Your task to perform on an android device: Clear all items from cart on newegg. Image 0: 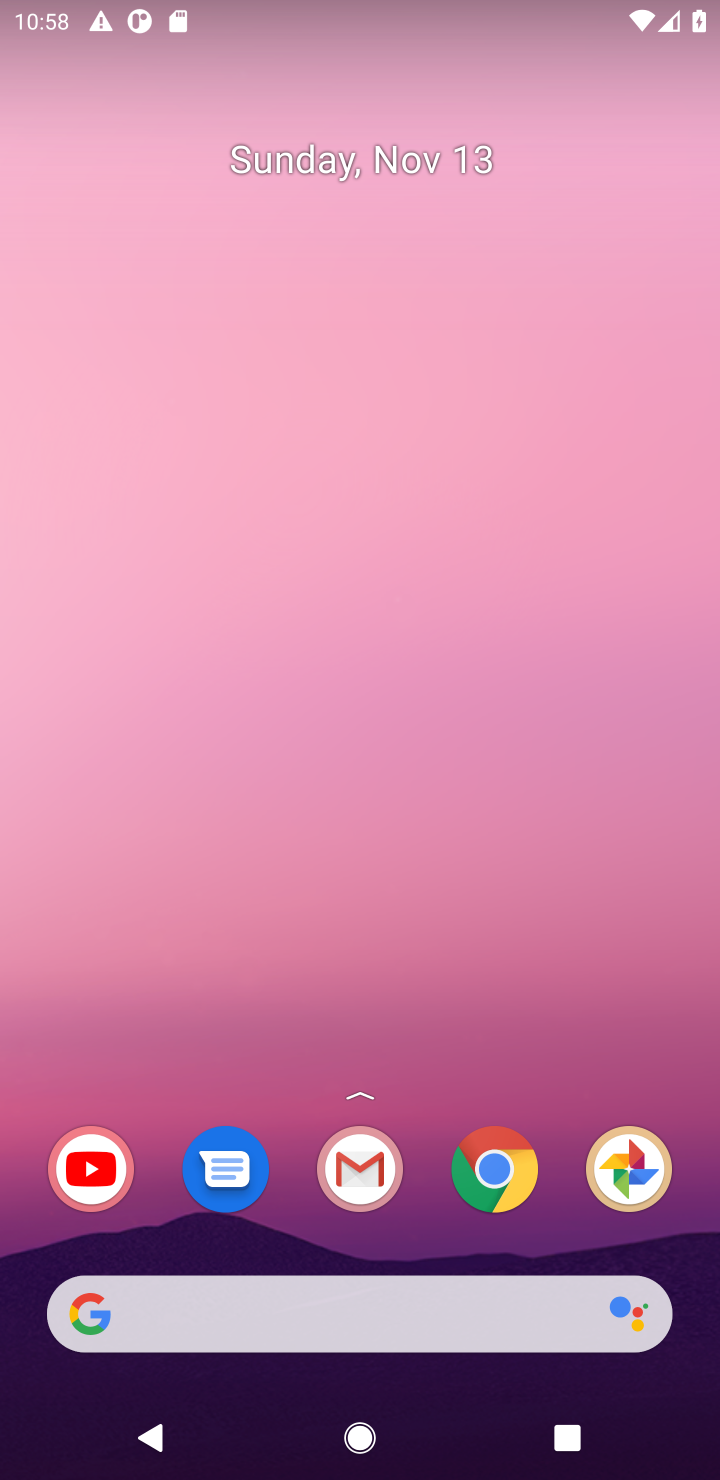
Step 0: drag from (422, 1231) to (378, 205)
Your task to perform on an android device: Clear all items from cart on newegg. Image 1: 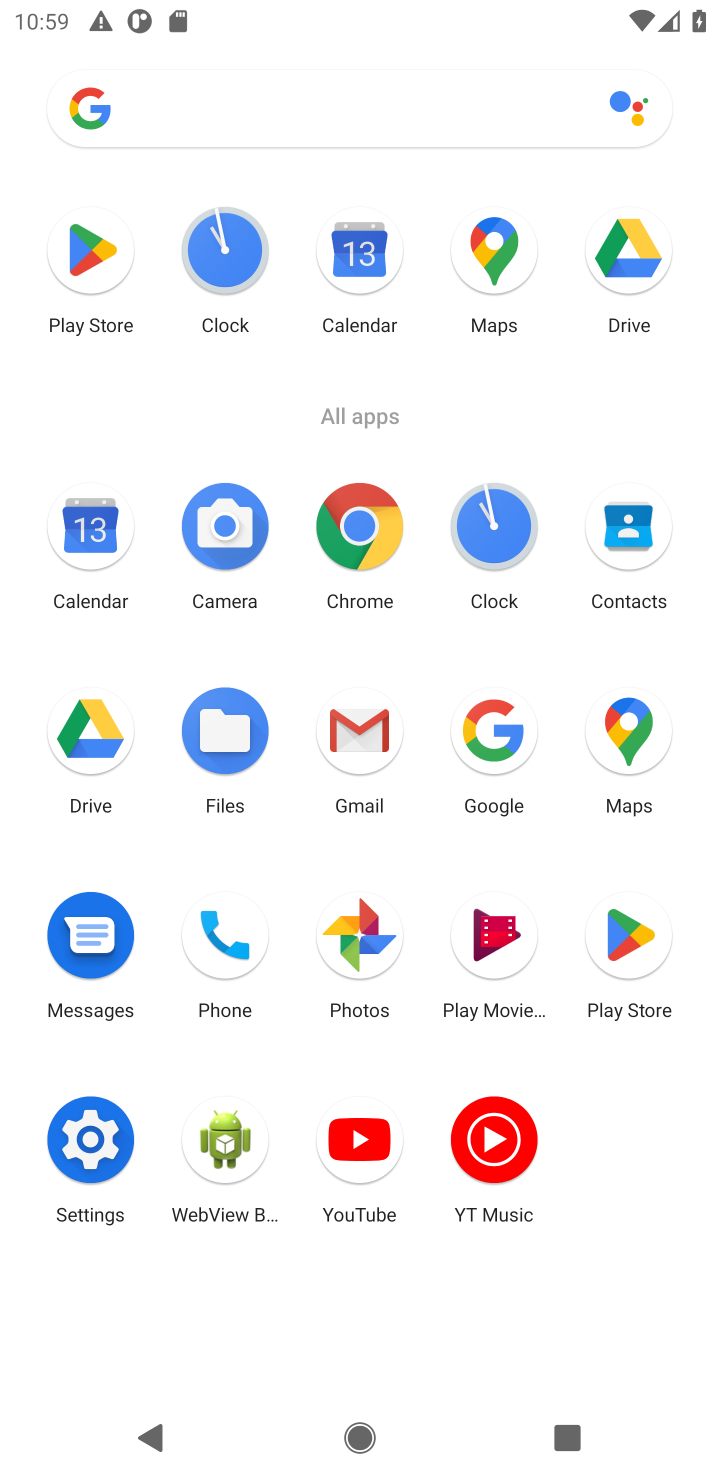
Step 1: click (361, 521)
Your task to perform on an android device: Clear all items from cart on newegg. Image 2: 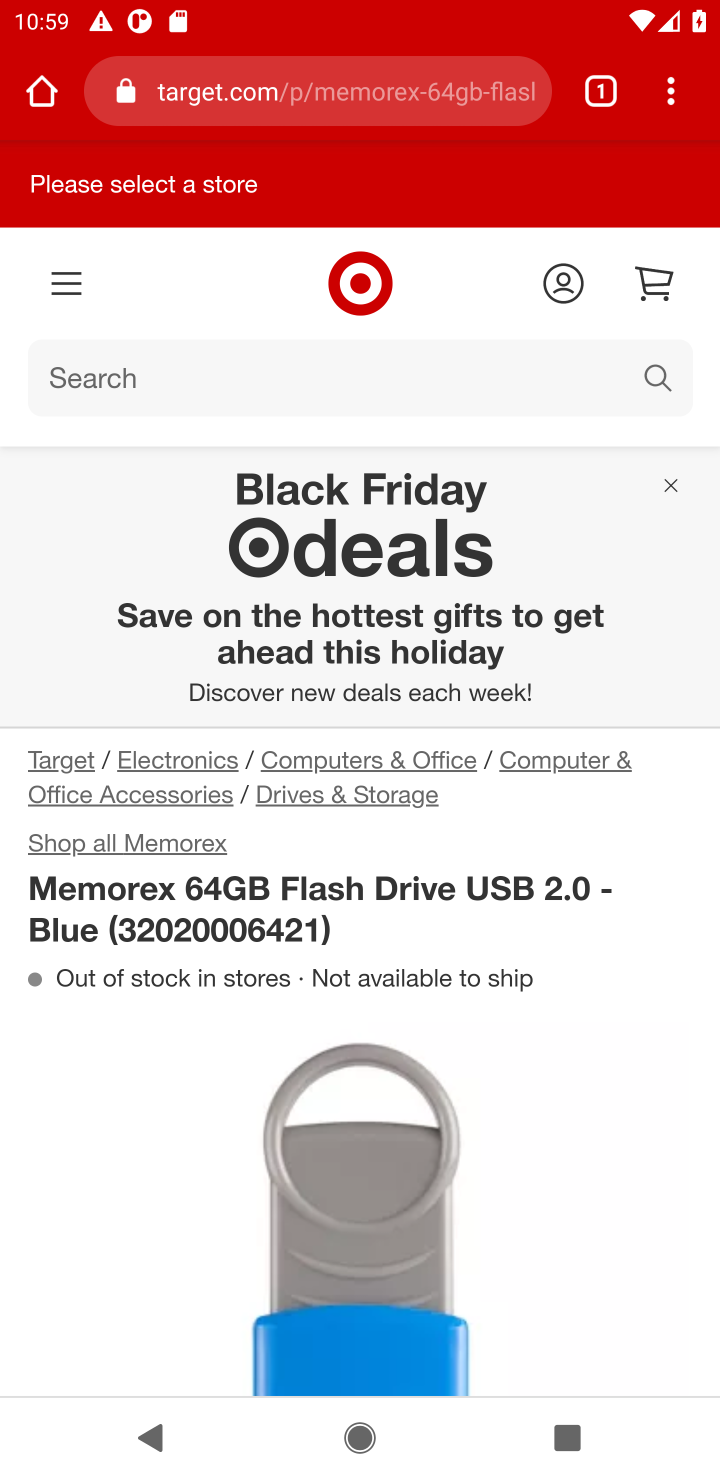
Step 2: click (447, 94)
Your task to perform on an android device: Clear all items from cart on newegg. Image 3: 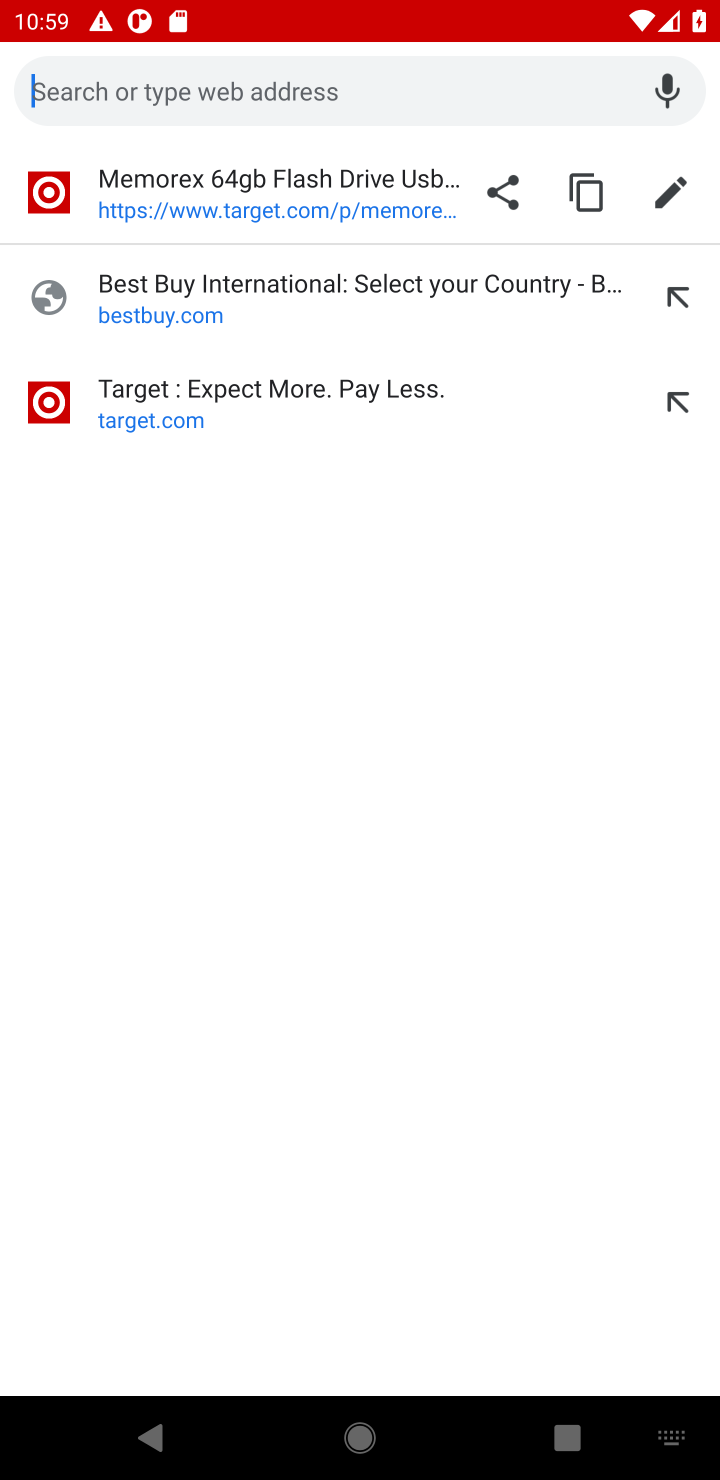
Step 3: type "newegg.com"
Your task to perform on an android device: Clear all items from cart on newegg. Image 4: 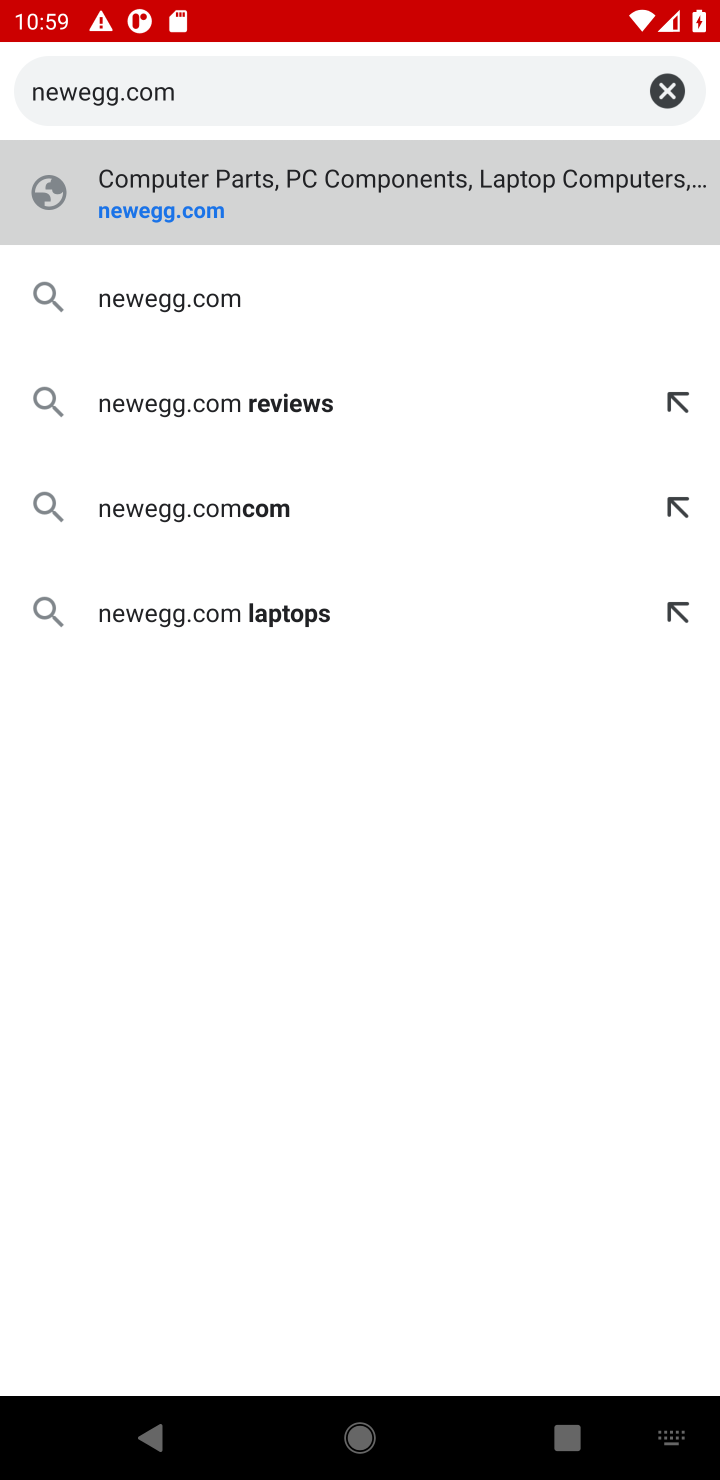
Step 4: press enter
Your task to perform on an android device: Clear all items from cart on newegg. Image 5: 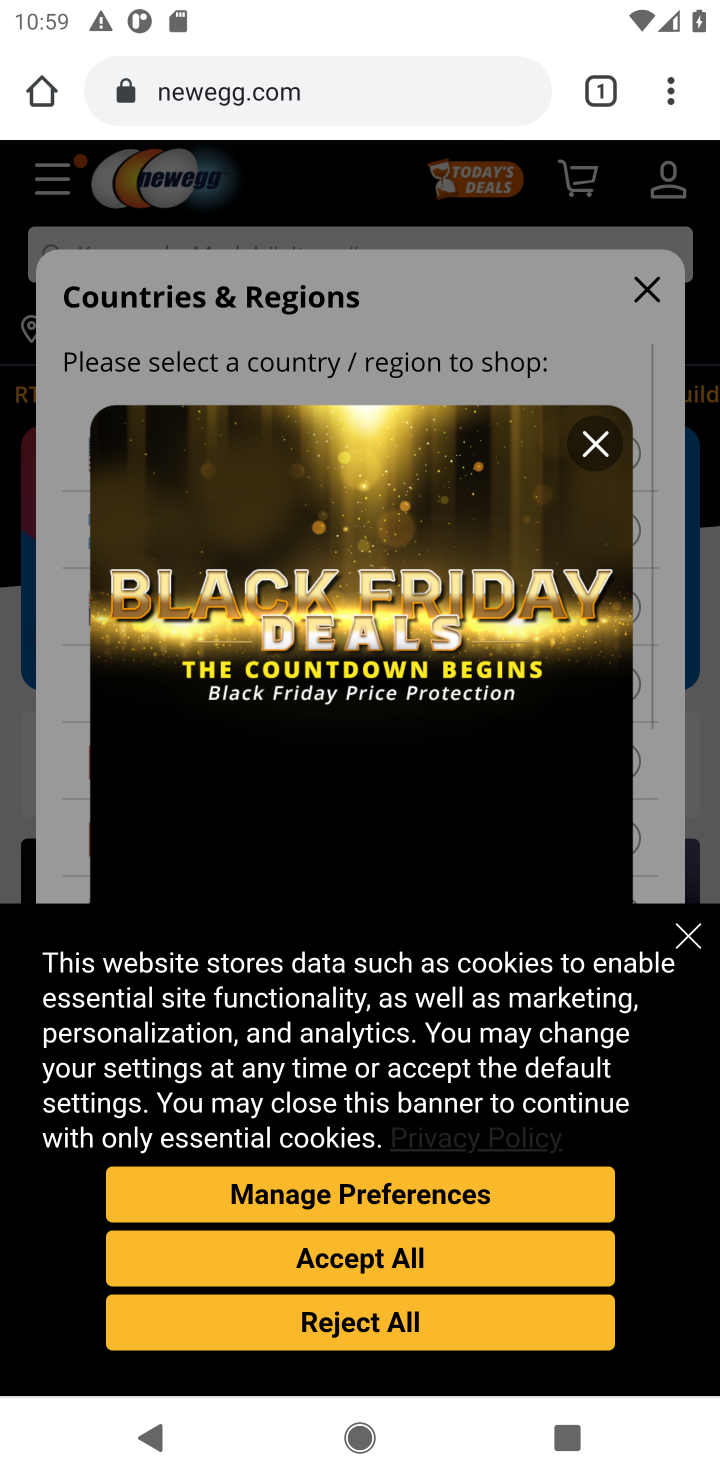
Step 5: click (419, 1262)
Your task to perform on an android device: Clear all items from cart on newegg. Image 6: 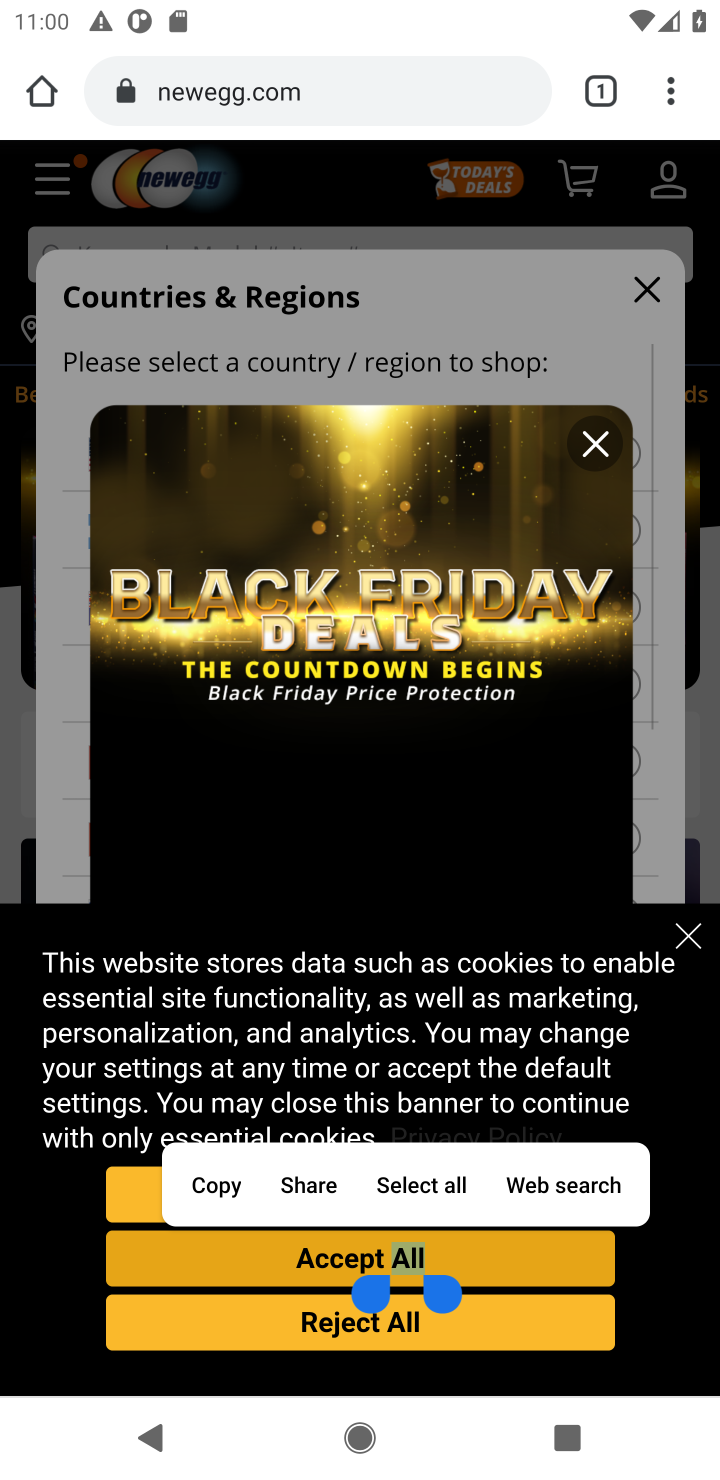
Step 6: click (443, 1273)
Your task to perform on an android device: Clear all items from cart on newegg. Image 7: 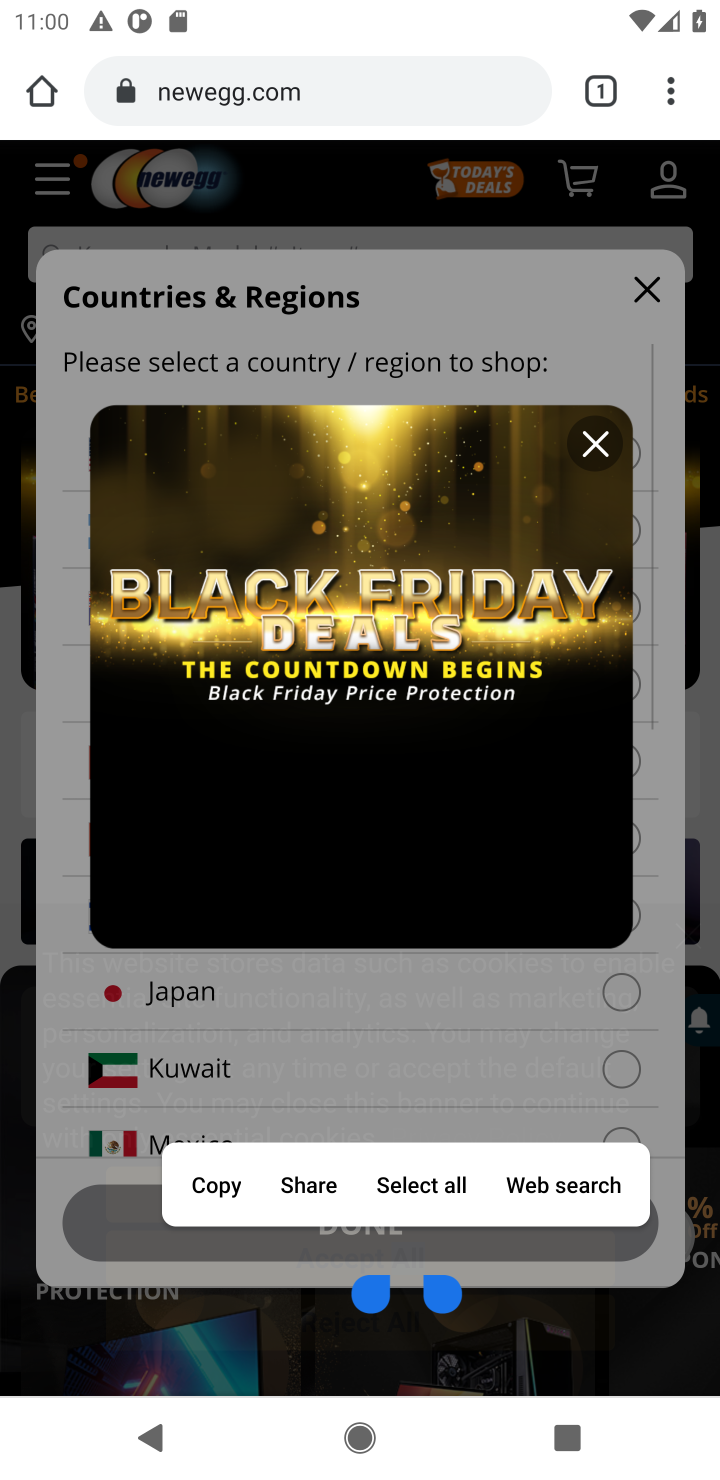
Step 7: click (376, 1260)
Your task to perform on an android device: Clear all items from cart on newegg. Image 8: 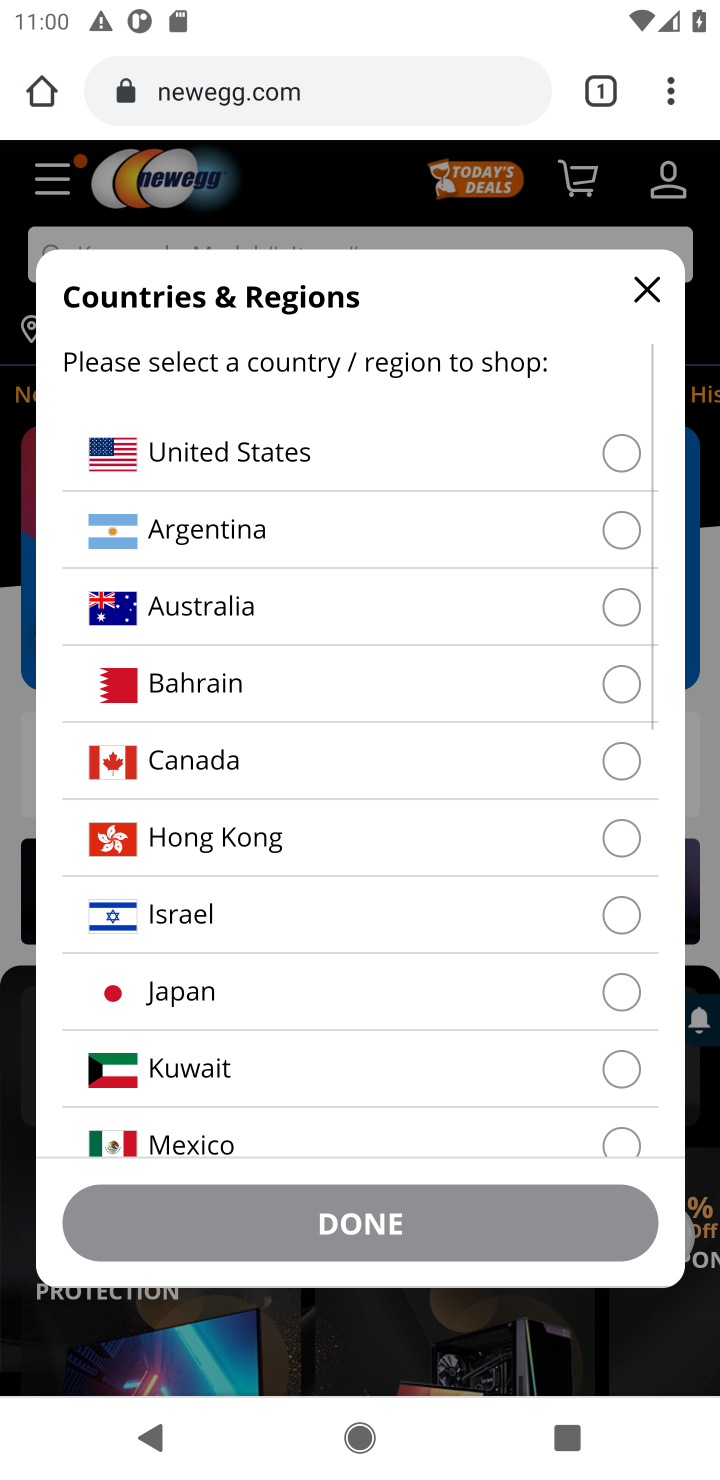
Step 8: click (653, 286)
Your task to perform on an android device: Clear all items from cart on newegg. Image 9: 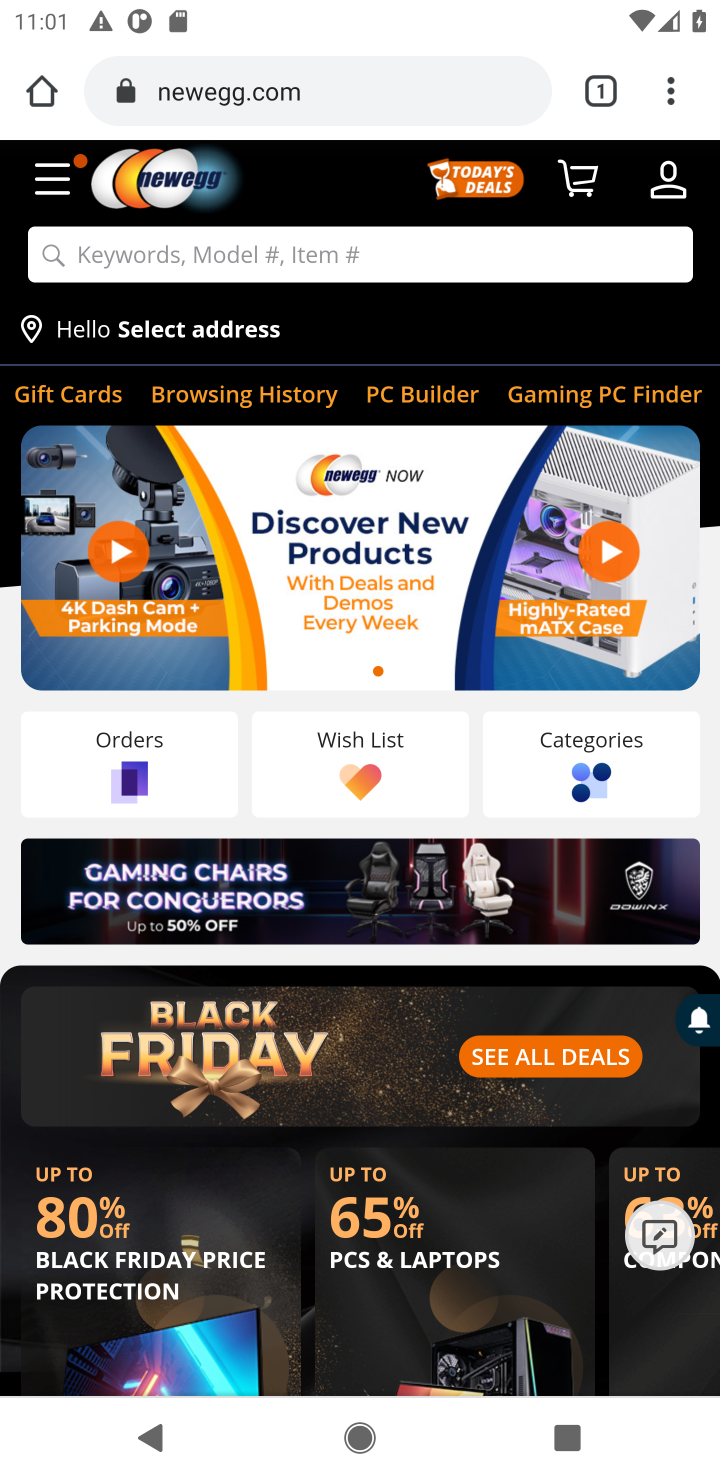
Step 9: click (574, 186)
Your task to perform on an android device: Clear all items from cart on newegg. Image 10: 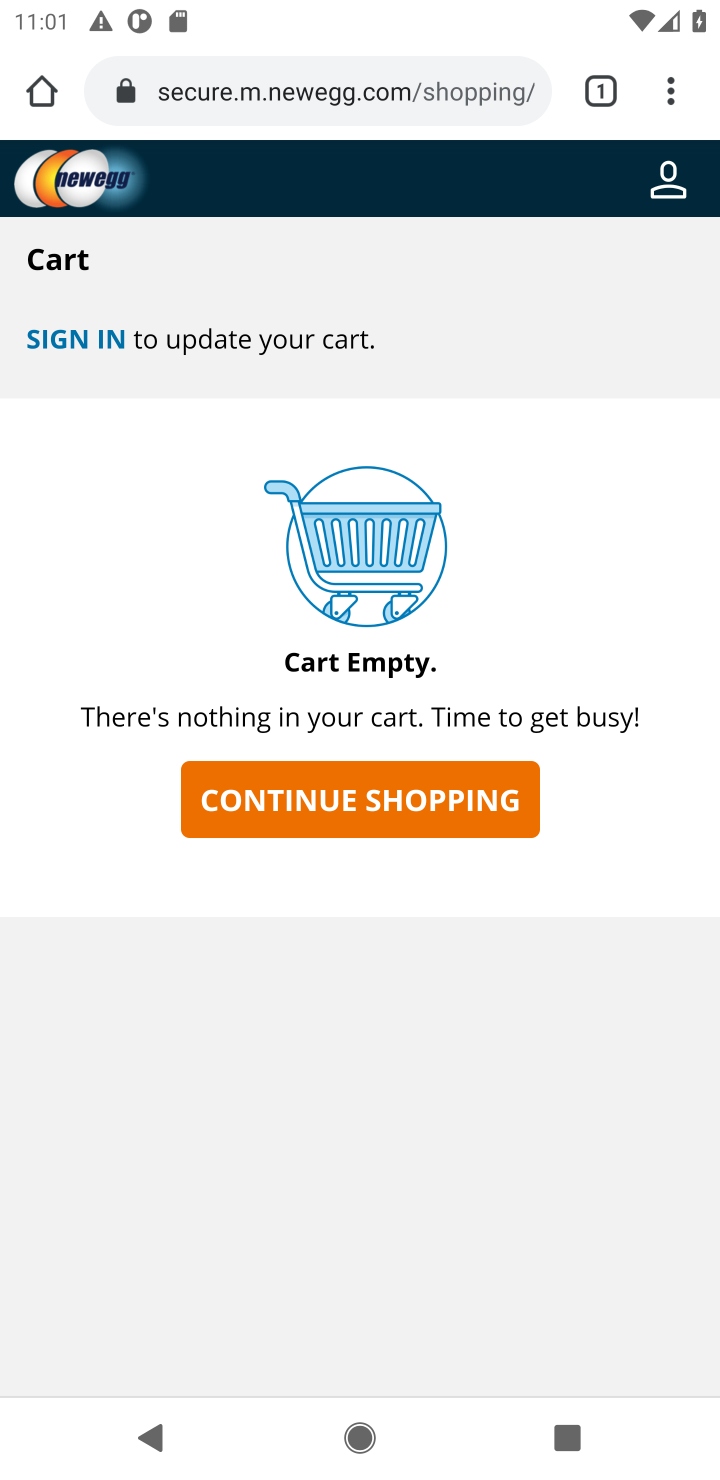
Step 10: task complete